Your task to perform on an android device: Go to settings Image 0: 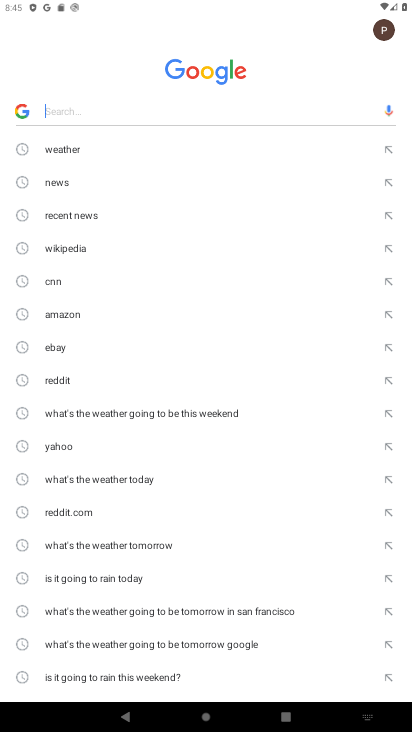
Step 0: press home button
Your task to perform on an android device: Go to settings Image 1: 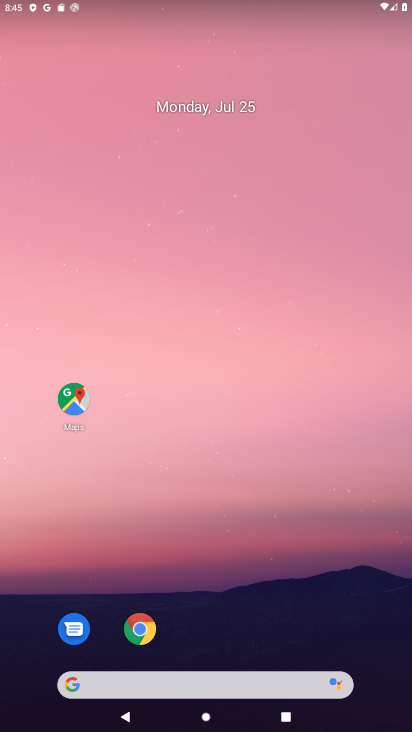
Step 1: drag from (288, 644) to (274, 271)
Your task to perform on an android device: Go to settings Image 2: 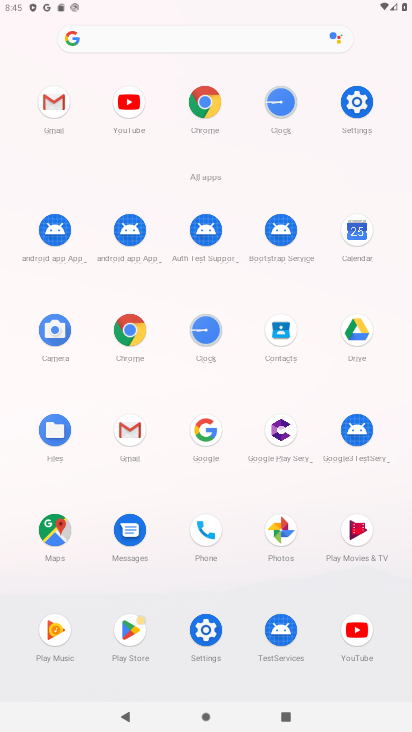
Step 2: click (352, 90)
Your task to perform on an android device: Go to settings Image 3: 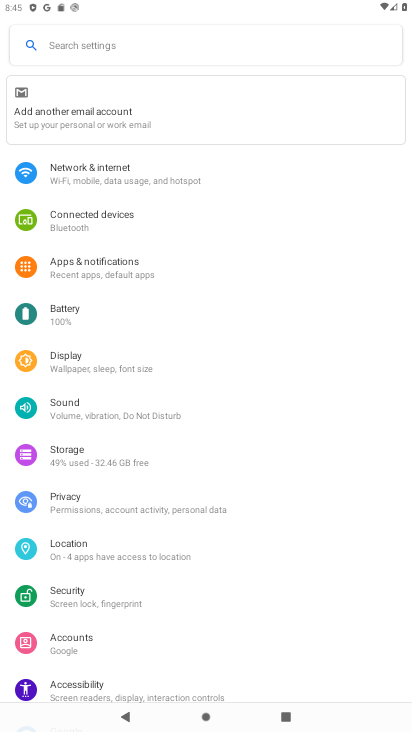
Step 3: task complete